Your task to perform on an android device: set the stopwatch Image 0: 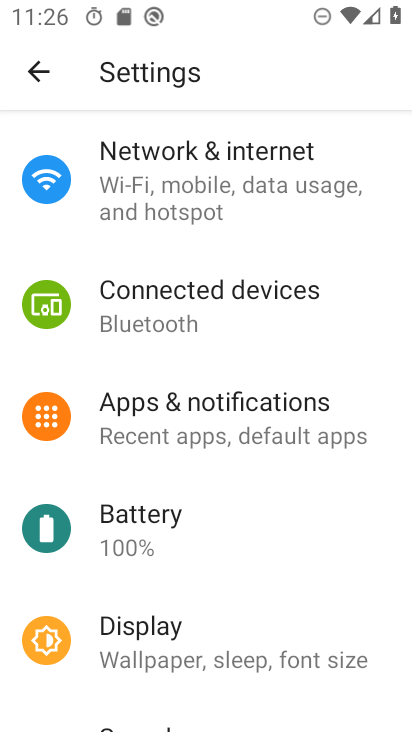
Step 0: press back button
Your task to perform on an android device: set the stopwatch Image 1: 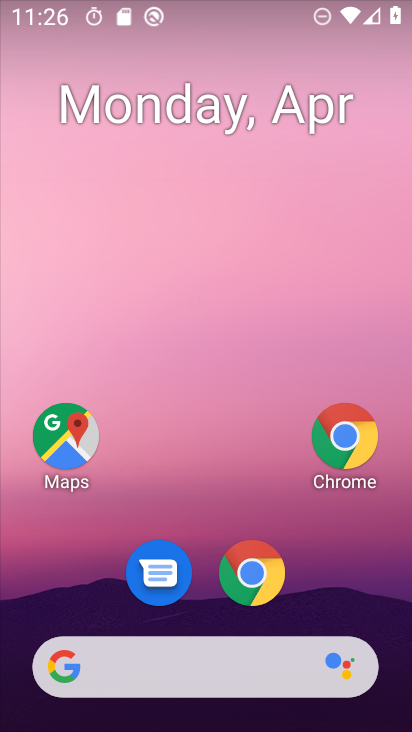
Step 1: drag from (308, 494) to (264, 82)
Your task to perform on an android device: set the stopwatch Image 2: 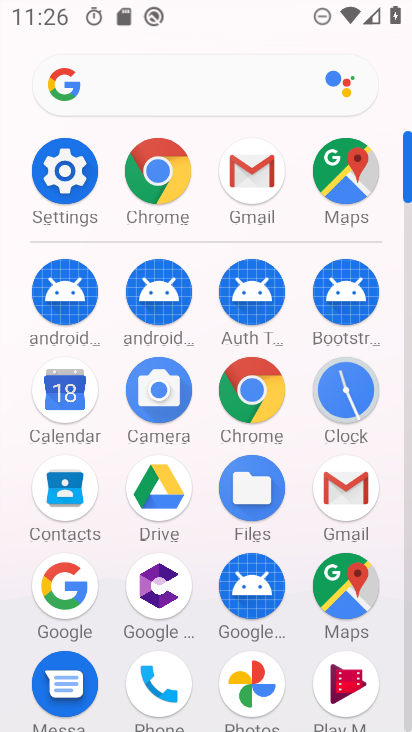
Step 2: click (355, 384)
Your task to perform on an android device: set the stopwatch Image 3: 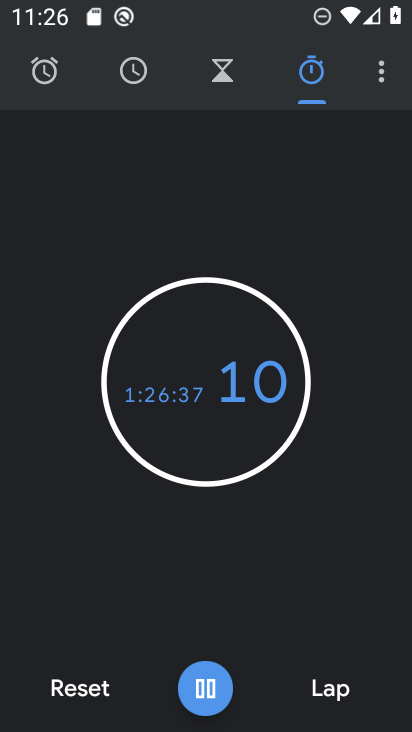
Step 3: task complete